Your task to perform on an android device: Open settings Image 0: 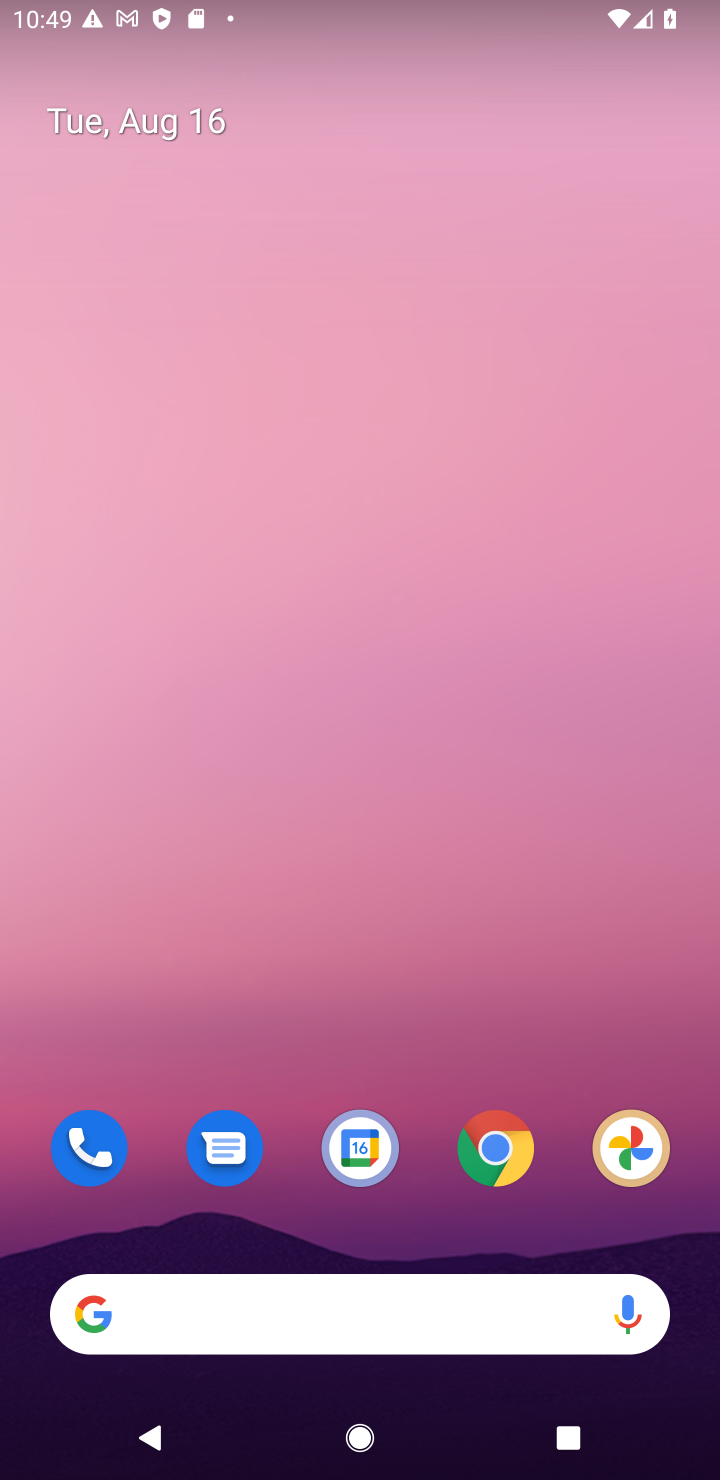
Step 0: press home button
Your task to perform on an android device: Open settings Image 1: 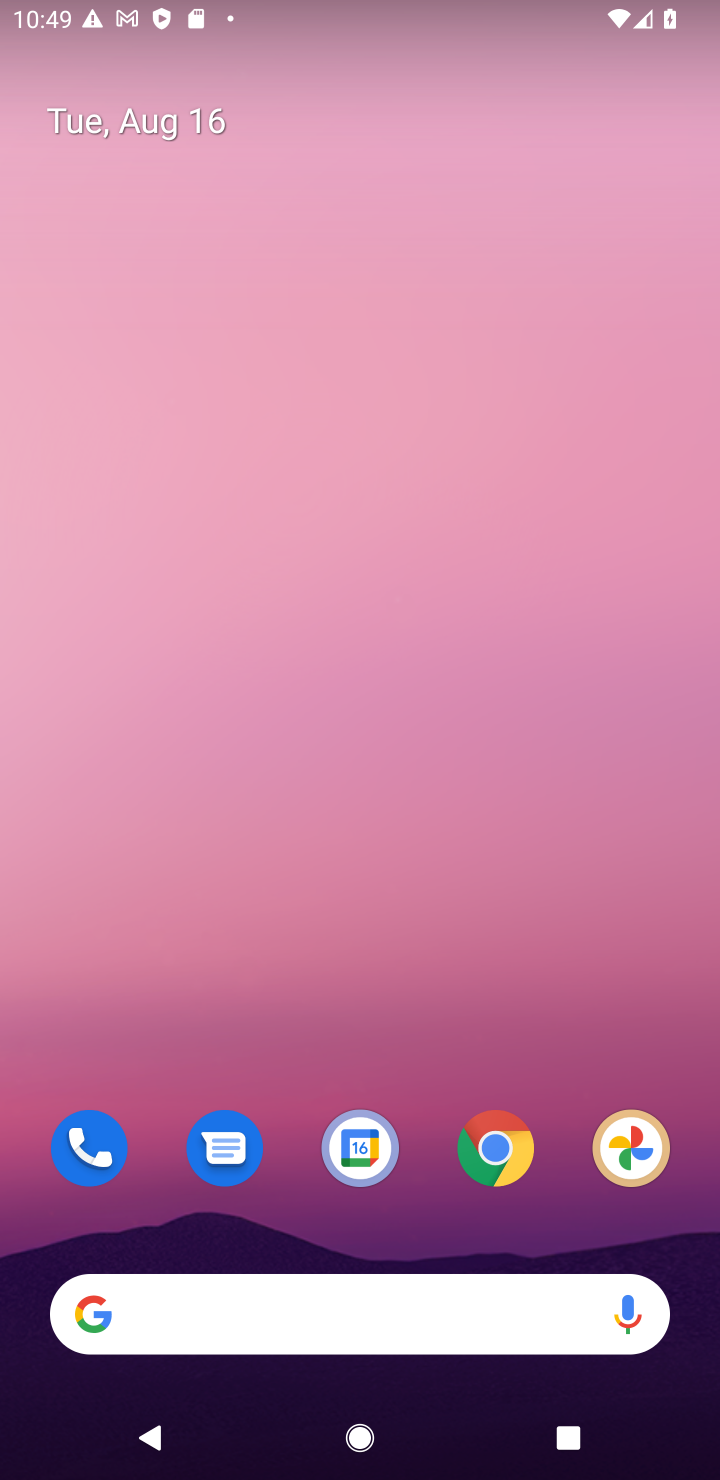
Step 1: press home button
Your task to perform on an android device: Open settings Image 2: 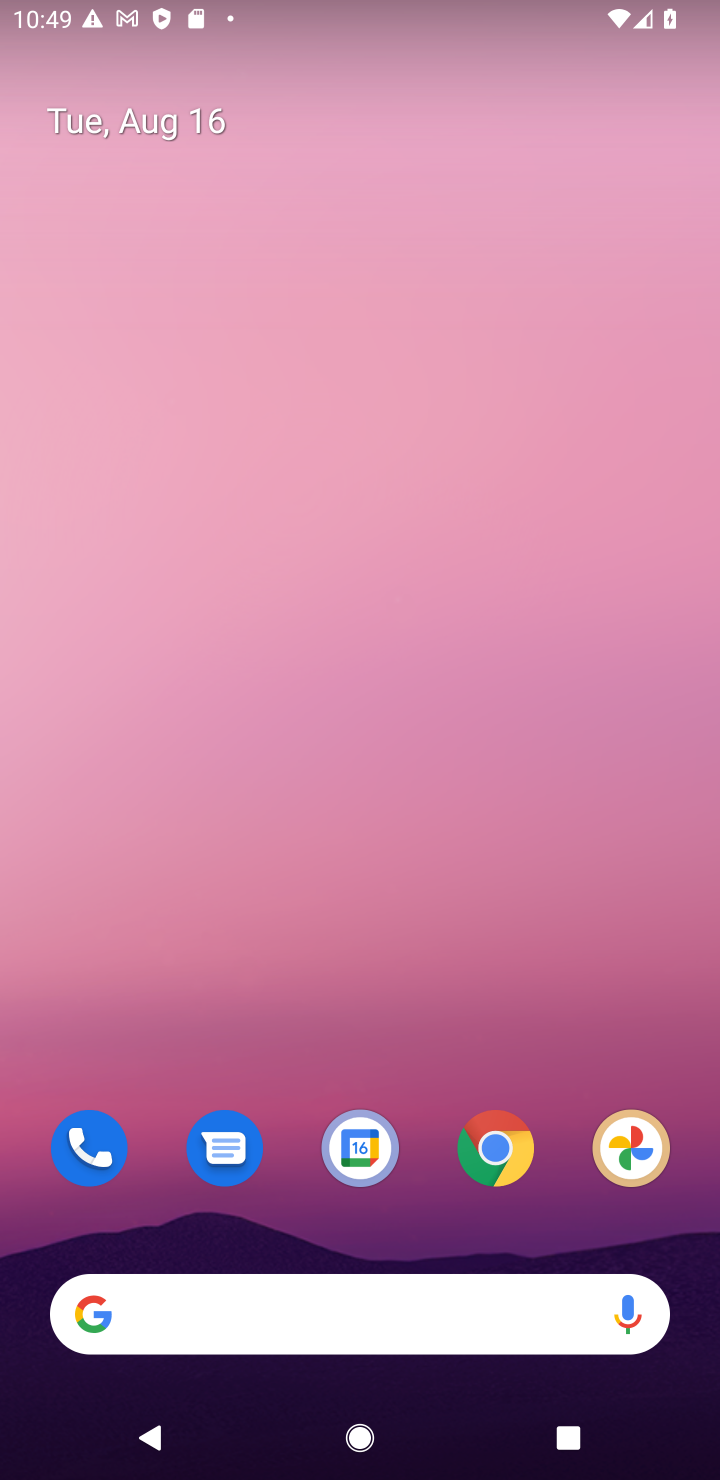
Step 2: press home button
Your task to perform on an android device: Open settings Image 3: 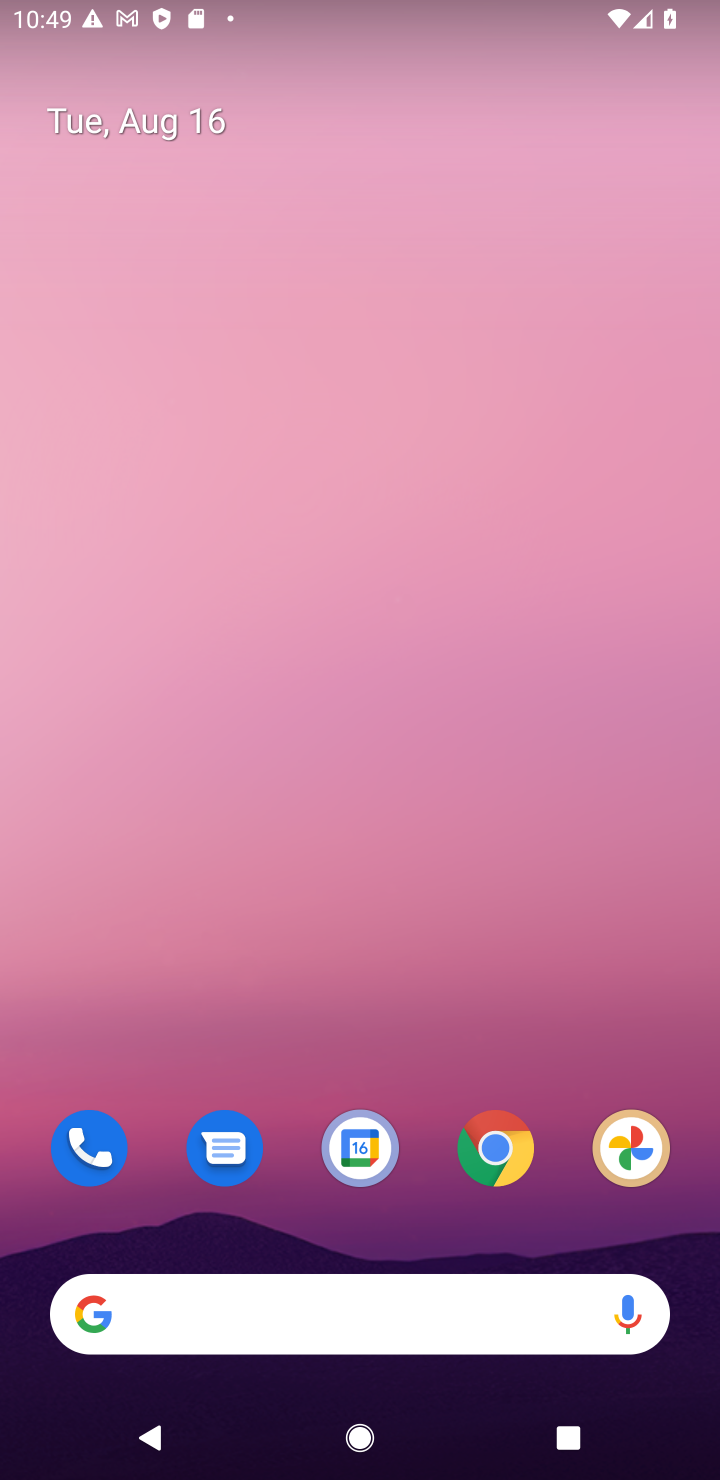
Step 3: drag from (354, 1306) to (392, 29)
Your task to perform on an android device: Open settings Image 4: 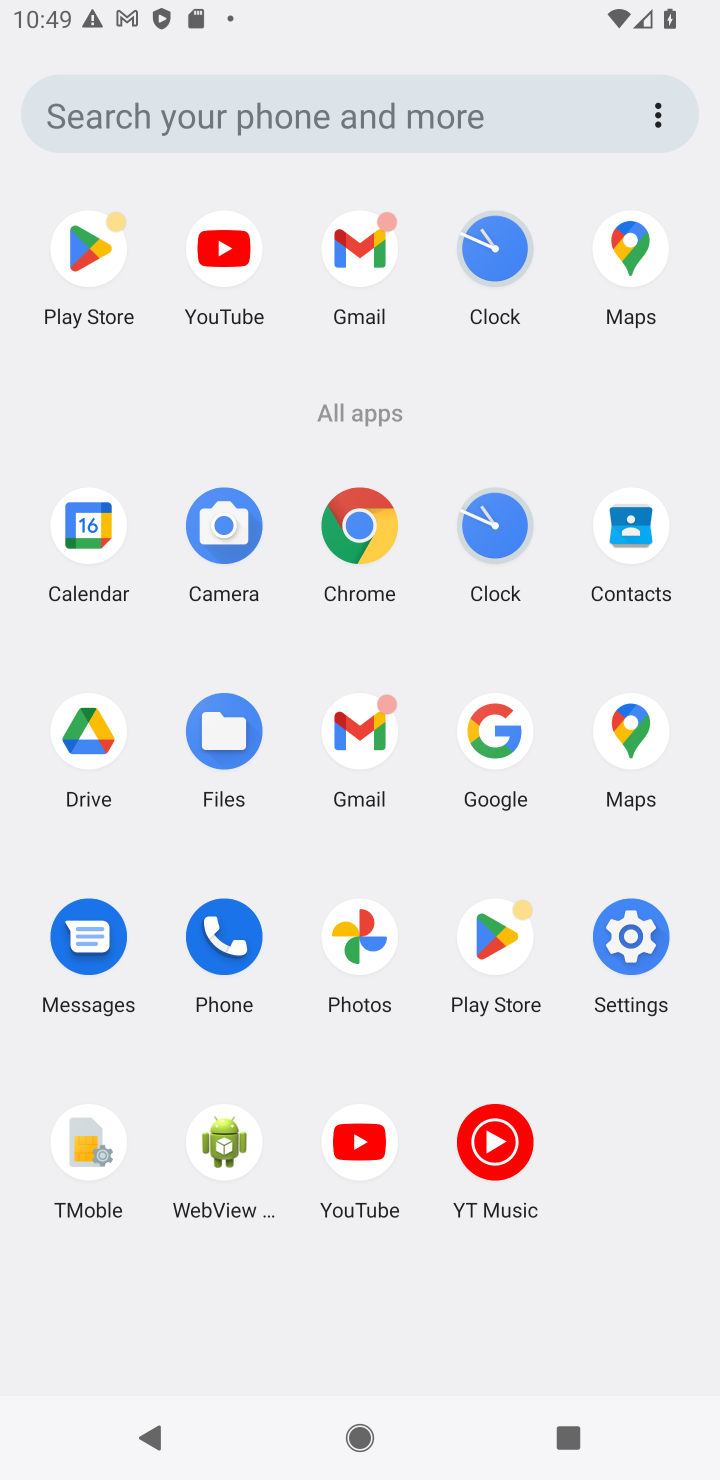
Step 4: click (610, 937)
Your task to perform on an android device: Open settings Image 5: 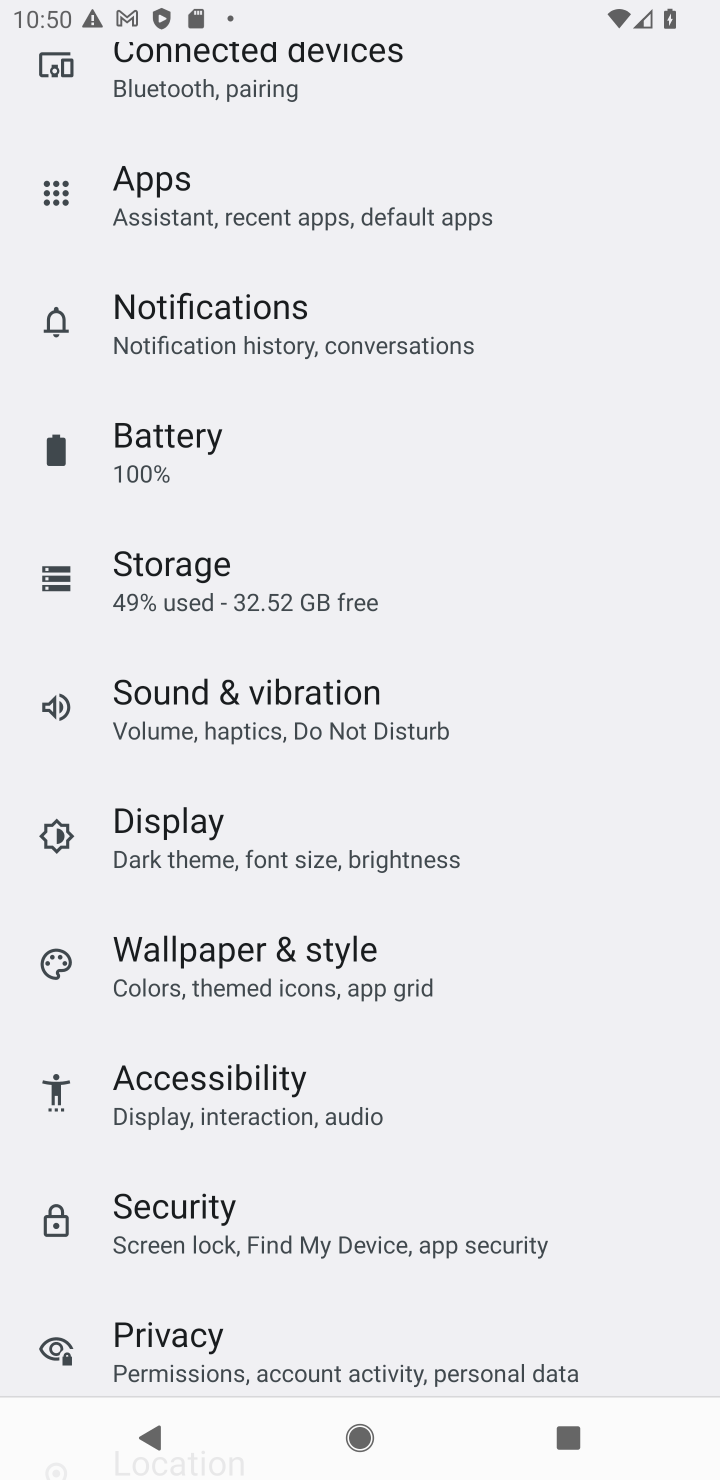
Step 5: task complete